Your task to perform on an android device: choose inbox layout in the gmail app Image 0: 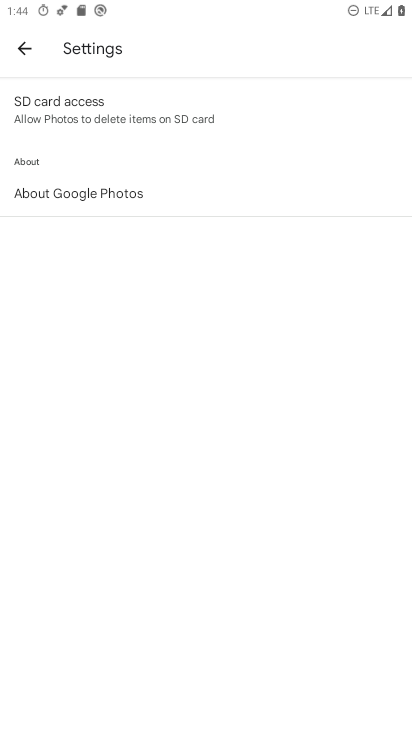
Step 0: click (249, 241)
Your task to perform on an android device: choose inbox layout in the gmail app Image 1: 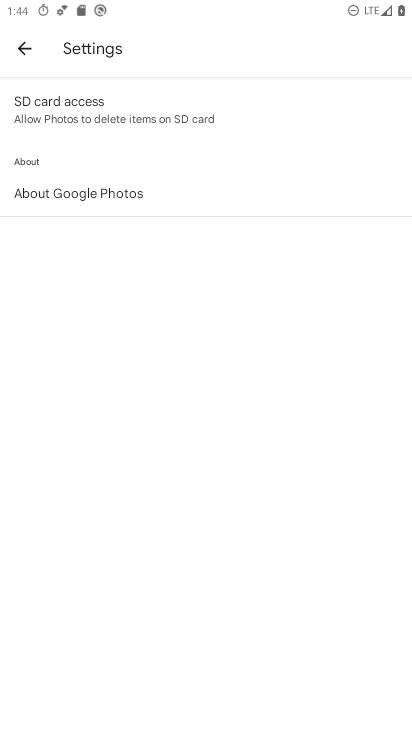
Step 1: drag from (223, 168) to (168, 569)
Your task to perform on an android device: choose inbox layout in the gmail app Image 2: 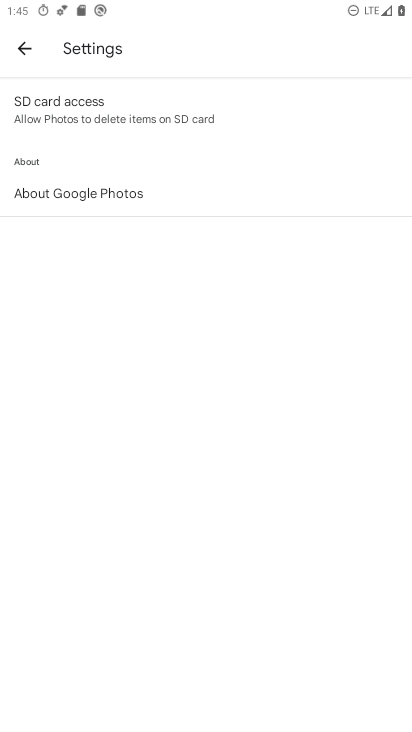
Step 2: drag from (154, 510) to (201, 284)
Your task to perform on an android device: choose inbox layout in the gmail app Image 3: 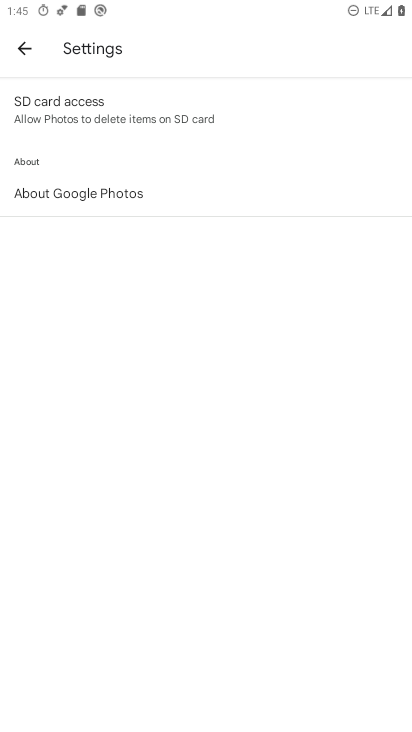
Step 3: click (167, 196)
Your task to perform on an android device: choose inbox layout in the gmail app Image 4: 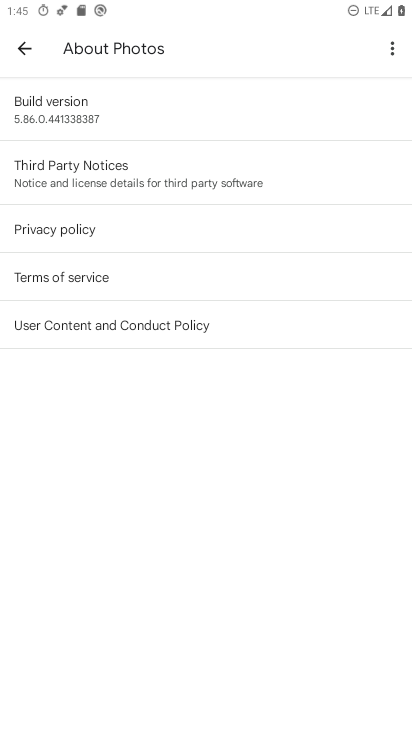
Step 4: click (17, 52)
Your task to perform on an android device: choose inbox layout in the gmail app Image 5: 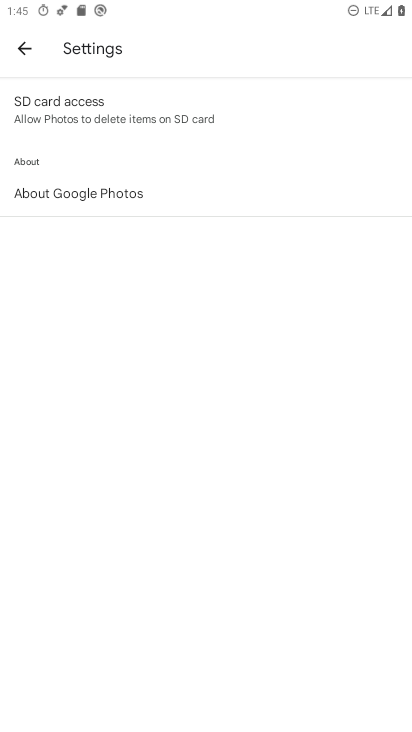
Step 5: click (17, 52)
Your task to perform on an android device: choose inbox layout in the gmail app Image 6: 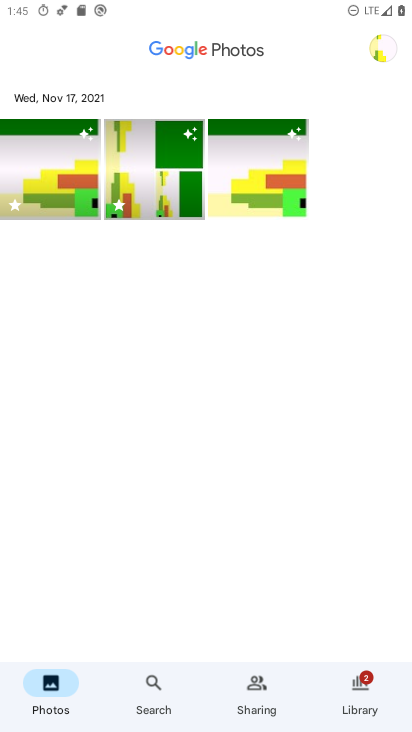
Step 6: press home button
Your task to perform on an android device: choose inbox layout in the gmail app Image 7: 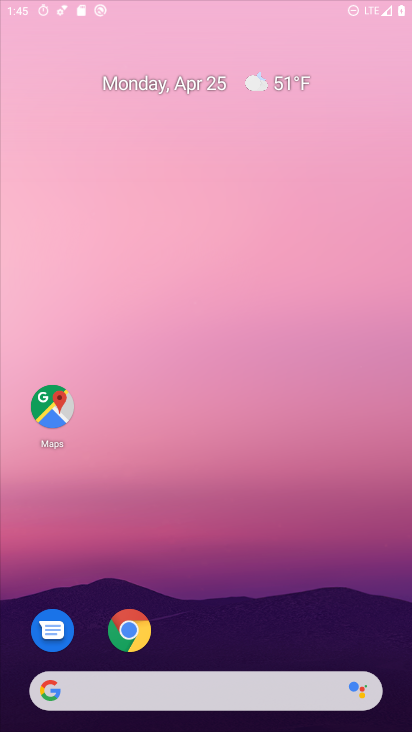
Step 7: drag from (299, 281) to (329, 157)
Your task to perform on an android device: choose inbox layout in the gmail app Image 8: 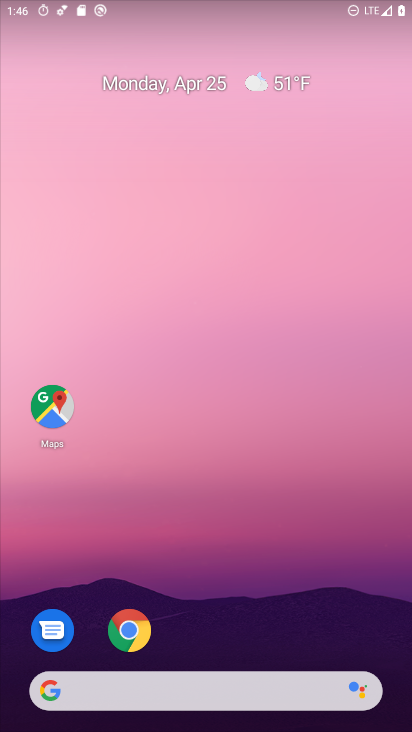
Step 8: drag from (188, 654) to (266, 154)
Your task to perform on an android device: choose inbox layout in the gmail app Image 9: 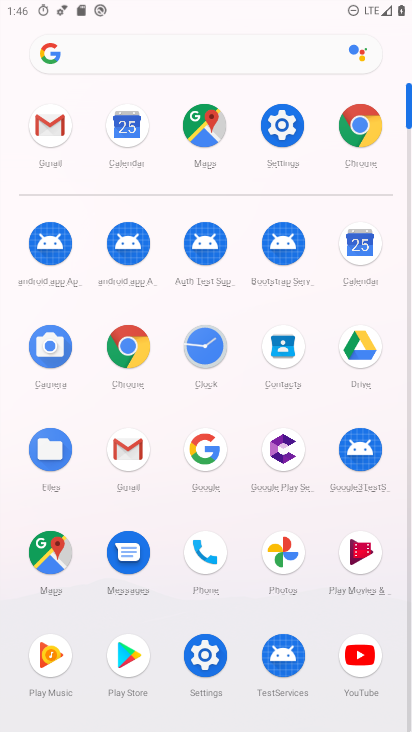
Step 9: click (112, 449)
Your task to perform on an android device: choose inbox layout in the gmail app Image 10: 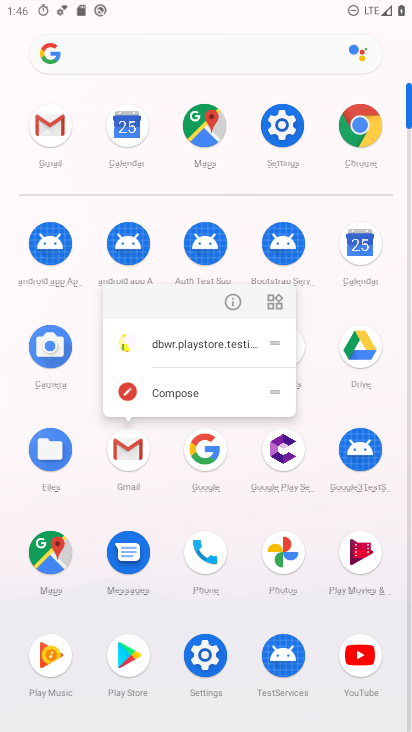
Step 10: click (233, 293)
Your task to perform on an android device: choose inbox layout in the gmail app Image 11: 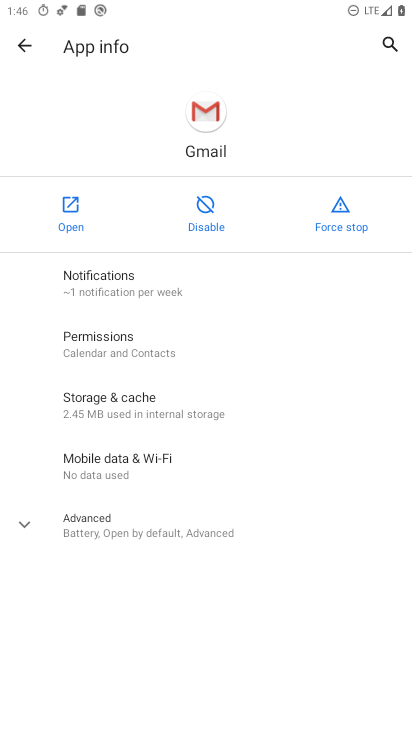
Step 11: click (87, 207)
Your task to perform on an android device: choose inbox layout in the gmail app Image 12: 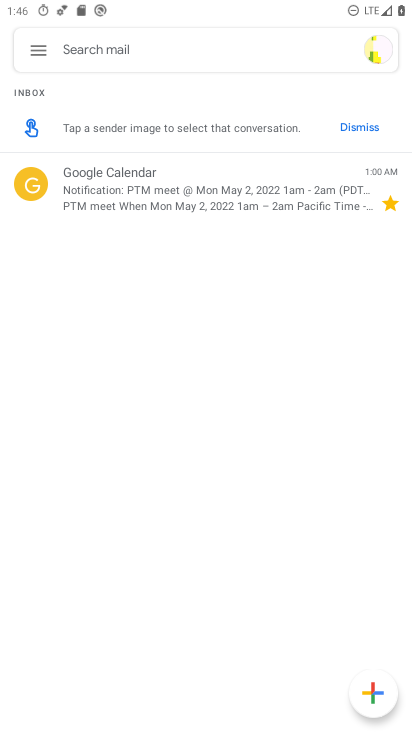
Step 12: click (38, 43)
Your task to perform on an android device: choose inbox layout in the gmail app Image 13: 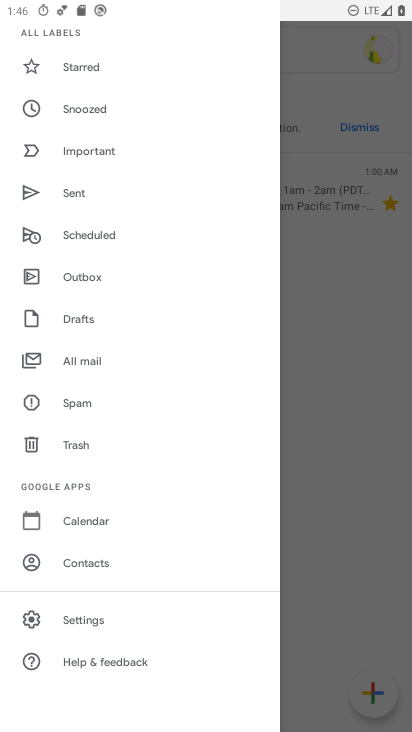
Step 13: drag from (125, 529) to (162, 235)
Your task to perform on an android device: choose inbox layout in the gmail app Image 14: 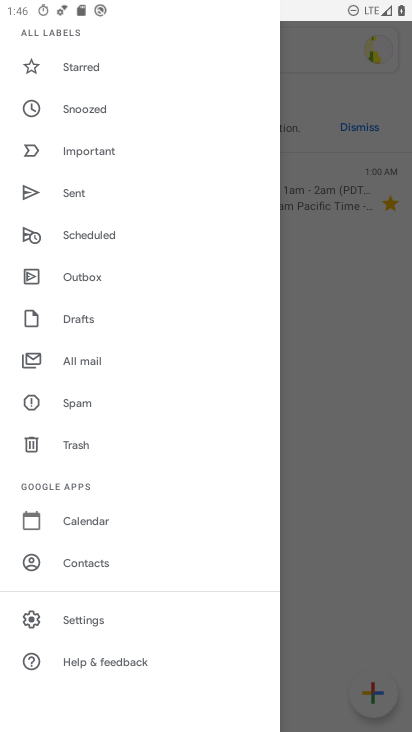
Step 14: click (106, 615)
Your task to perform on an android device: choose inbox layout in the gmail app Image 15: 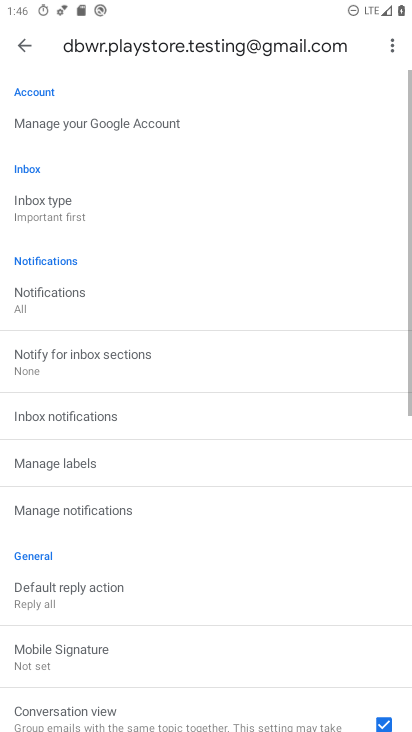
Step 15: drag from (210, 533) to (192, 233)
Your task to perform on an android device: choose inbox layout in the gmail app Image 16: 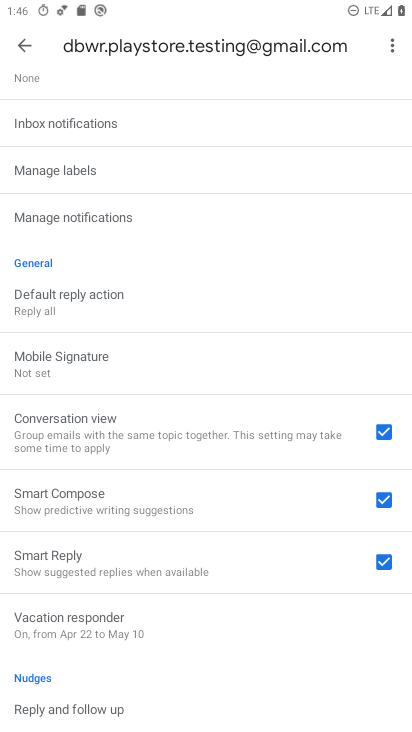
Step 16: drag from (159, 299) to (308, 719)
Your task to perform on an android device: choose inbox layout in the gmail app Image 17: 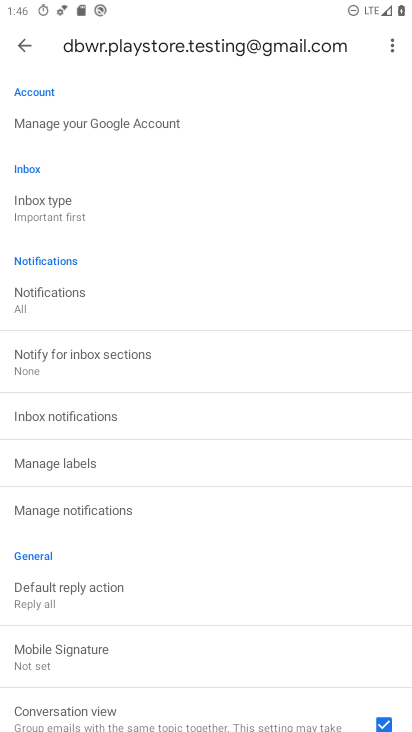
Step 17: click (14, 32)
Your task to perform on an android device: choose inbox layout in the gmail app Image 18: 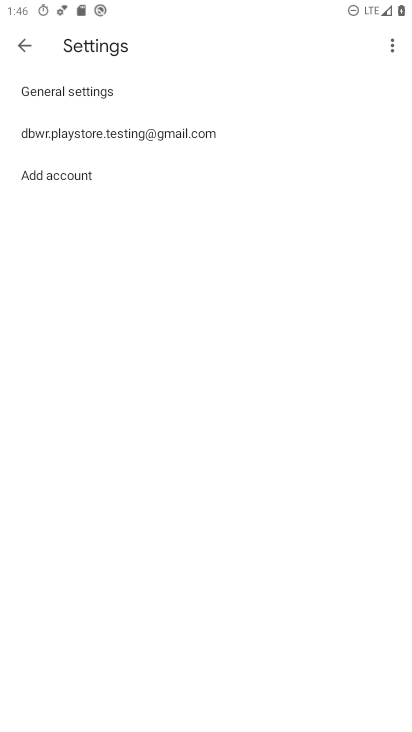
Step 18: click (28, 40)
Your task to perform on an android device: choose inbox layout in the gmail app Image 19: 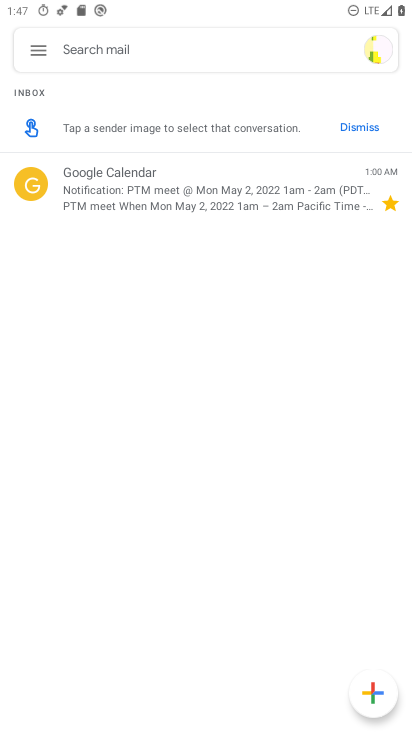
Step 19: click (55, 56)
Your task to perform on an android device: choose inbox layout in the gmail app Image 20: 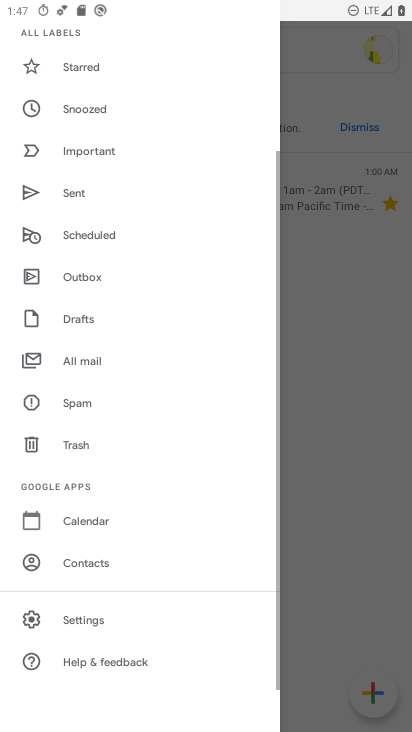
Step 20: drag from (131, 159) to (211, 683)
Your task to perform on an android device: choose inbox layout in the gmail app Image 21: 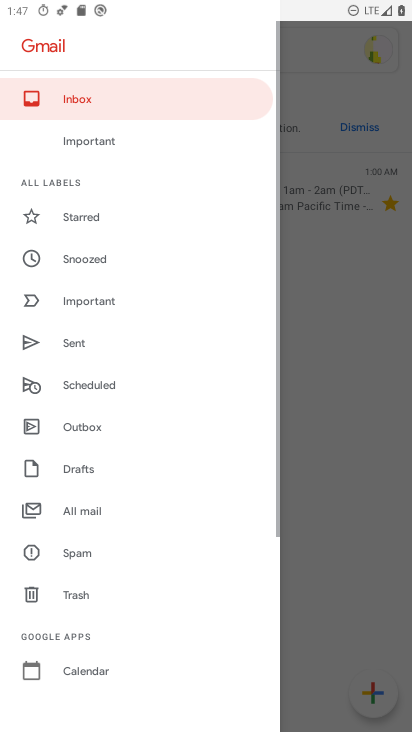
Step 21: click (100, 112)
Your task to perform on an android device: choose inbox layout in the gmail app Image 22: 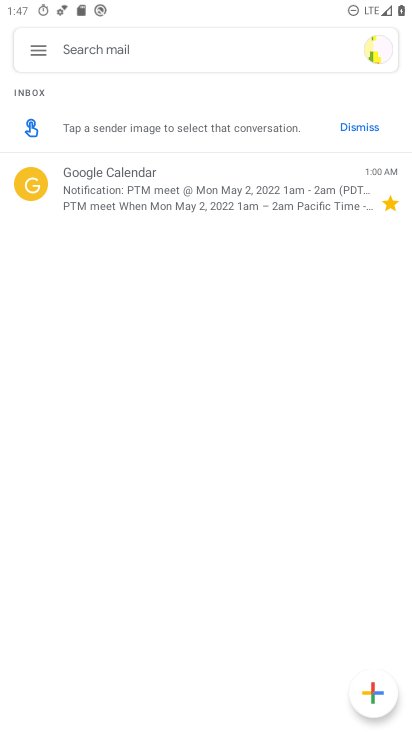
Step 22: click (37, 58)
Your task to perform on an android device: choose inbox layout in the gmail app Image 23: 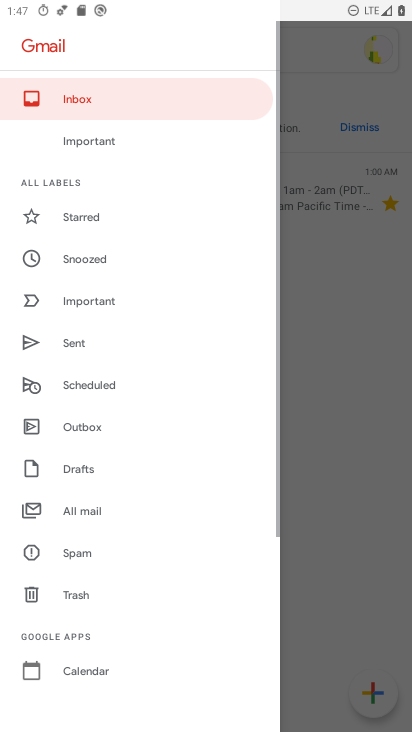
Step 23: click (118, 102)
Your task to perform on an android device: choose inbox layout in the gmail app Image 24: 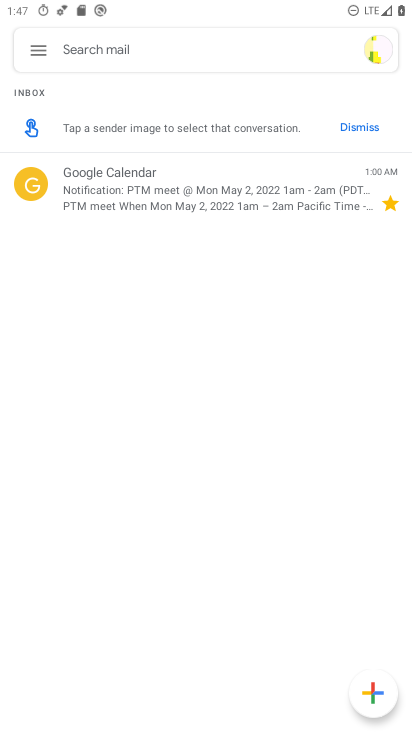
Step 24: task complete